Your task to perform on an android device: open app "eBay: The shopping marketplace" (install if not already installed) and go to login screen Image 0: 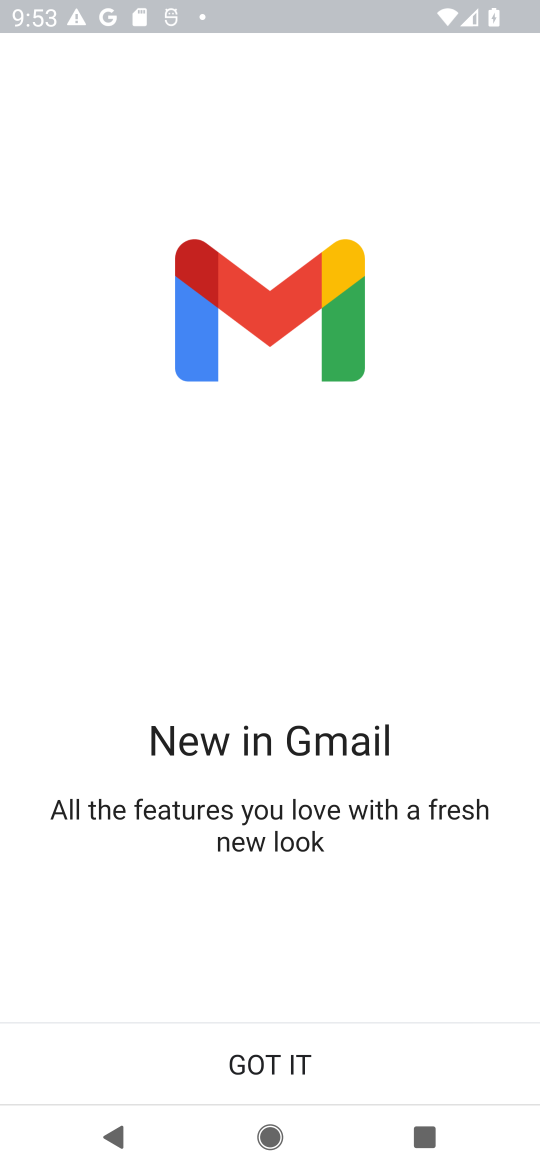
Step 0: press home button
Your task to perform on an android device: open app "eBay: The shopping marketplace" (install if not already installed) and go to login screen Image 1: 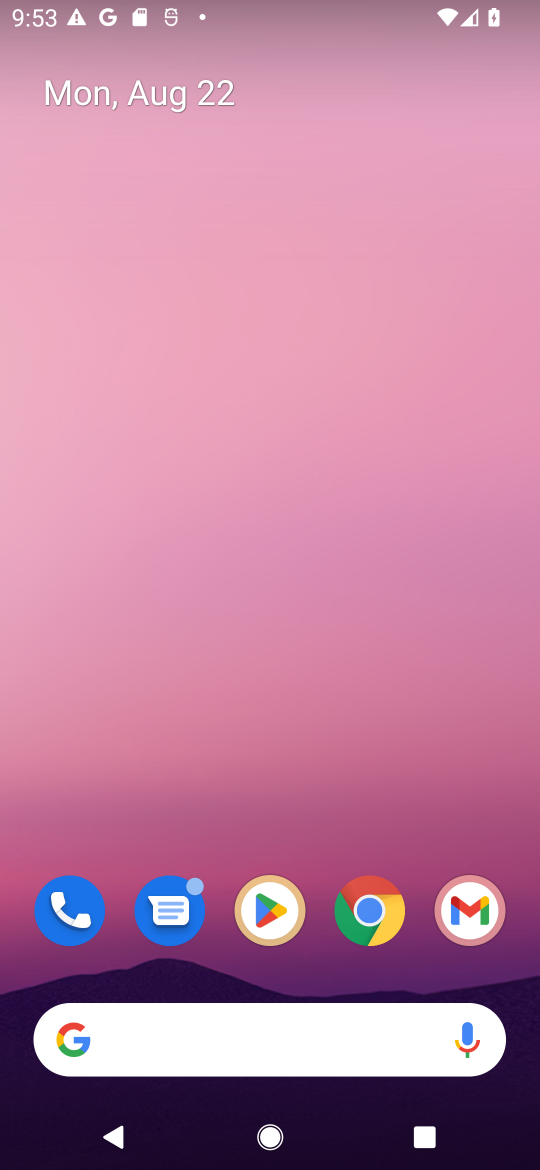
Step 1: click (278, 910)
Your task to perform on an android device: open app "eBay: The shopping marketplace" (install if not already installed) and go to login screen Image 2: 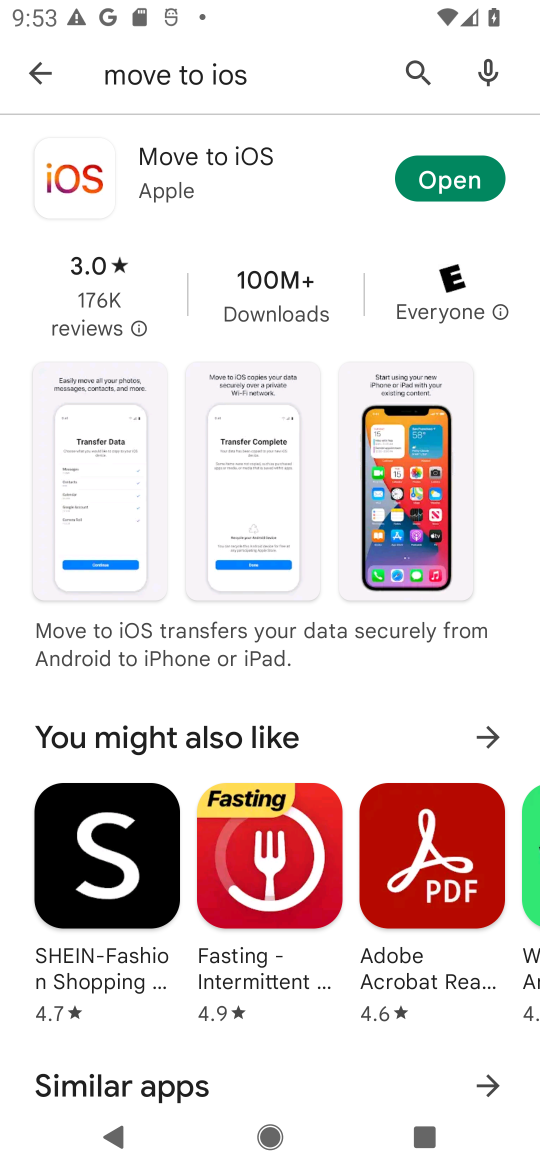
Step 2: click (424, 69)
Your task to perform on an android device: open app "eBay: The shopping marketplace" (install if not already installed) and go to login screen Image 3: 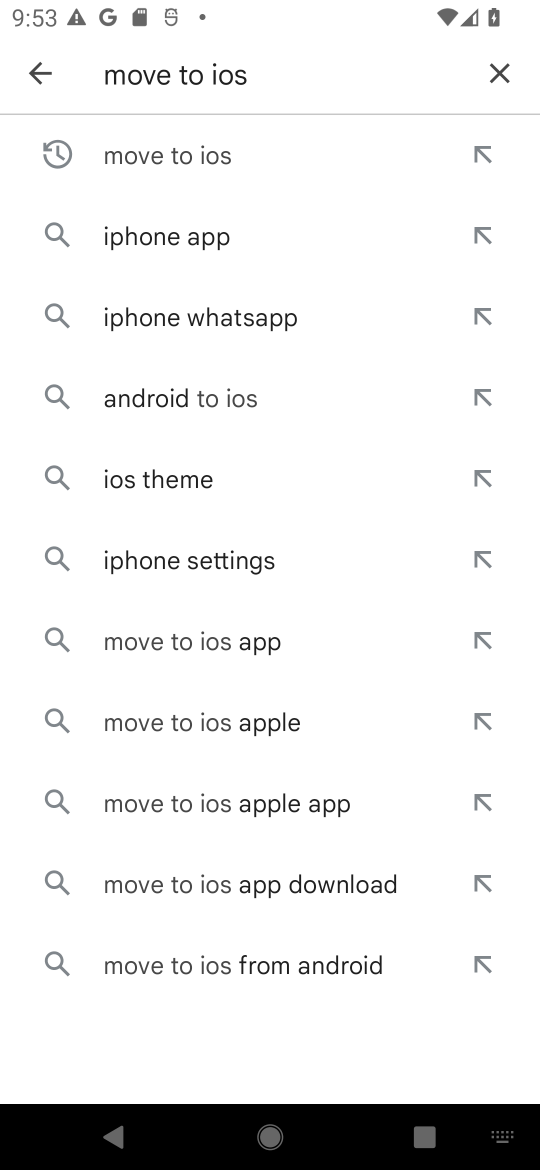
Step 3: click (505, 71)
Your task to perform on an android device: open app "eBay: The shopping marketplace" (install if not already installed) and go to login screen Image 4: 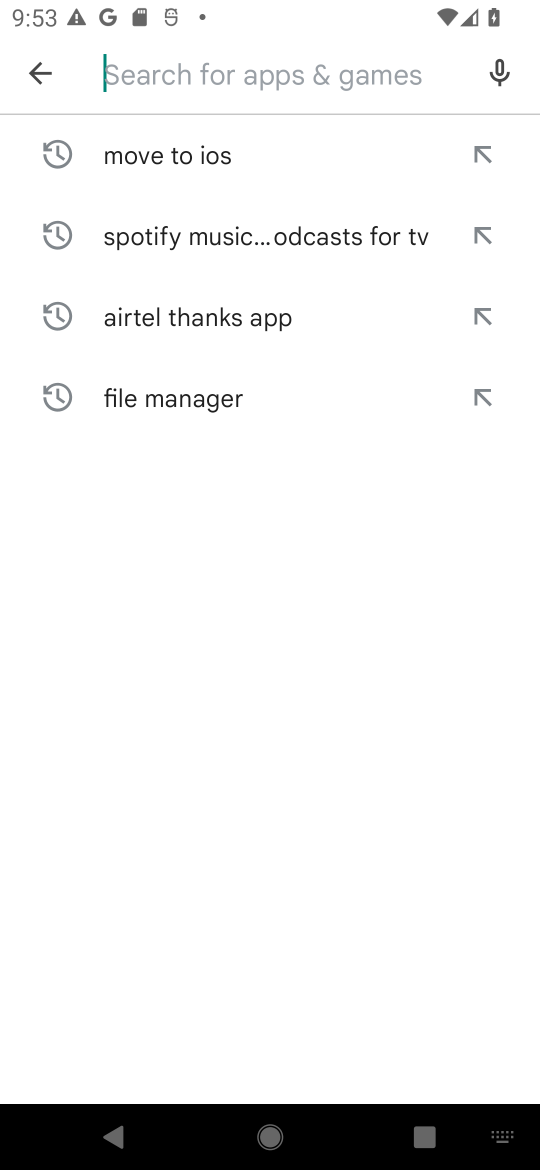
Step 4: type "eBay: The shopping marketplace"
Your task to perform on an android device: open app "eBay: The shopping marketplace" (install if not already installed) and go to login screen Image 5: 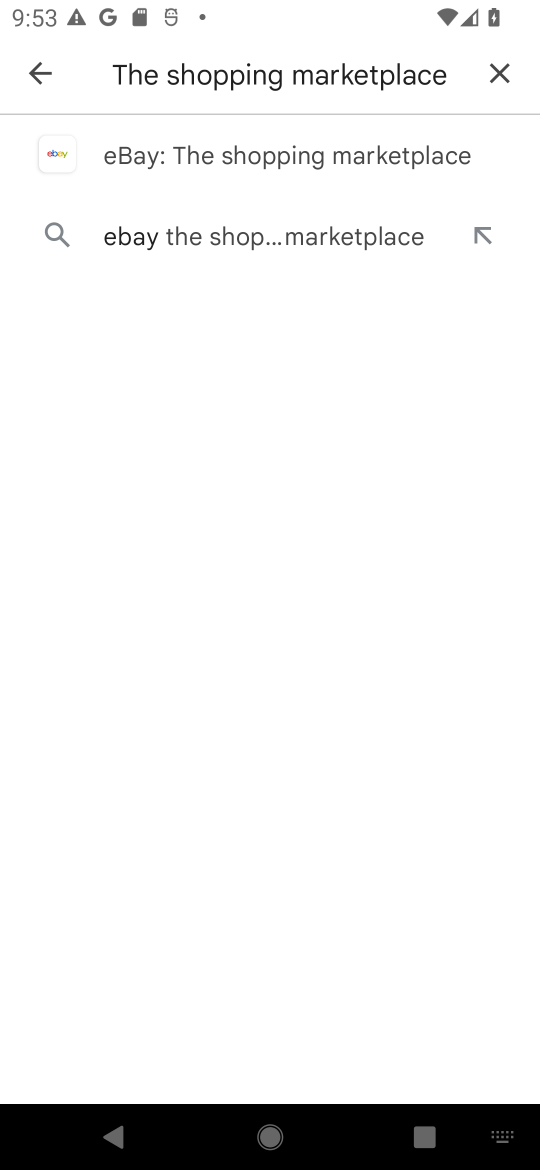
Step 5: click (290, 170)
Your task to perform on an android device: open app "eBay: The shopping marketplace" (install if not already installed) and go to login screen Image 6: 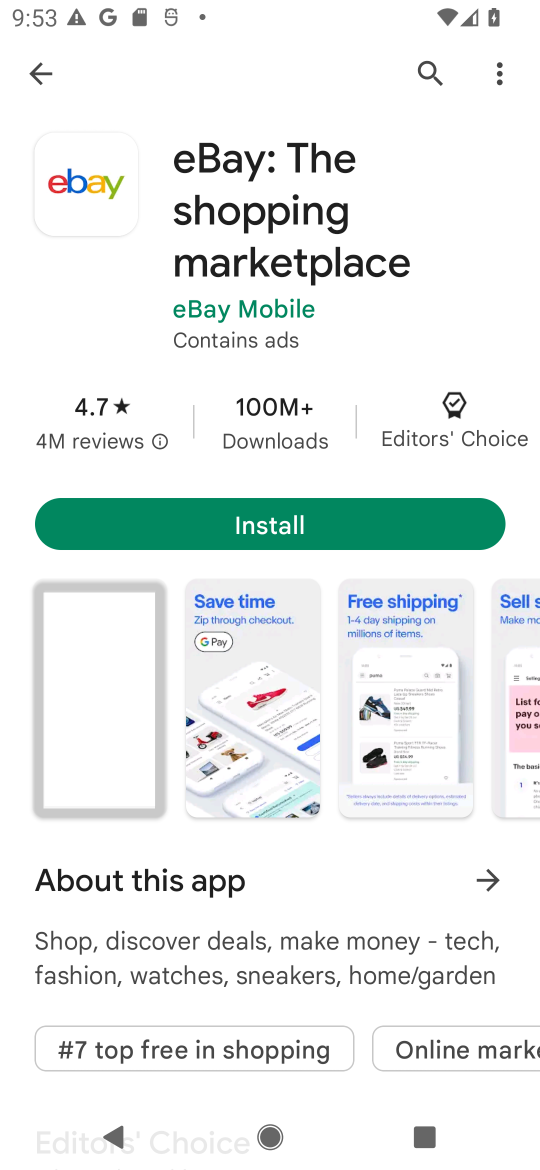
Step 6: click (275, 521)
Your task to perform on an android device: open app "eBay: The shopping marketplace" (install if not already installed) and go to login screen Image 7: 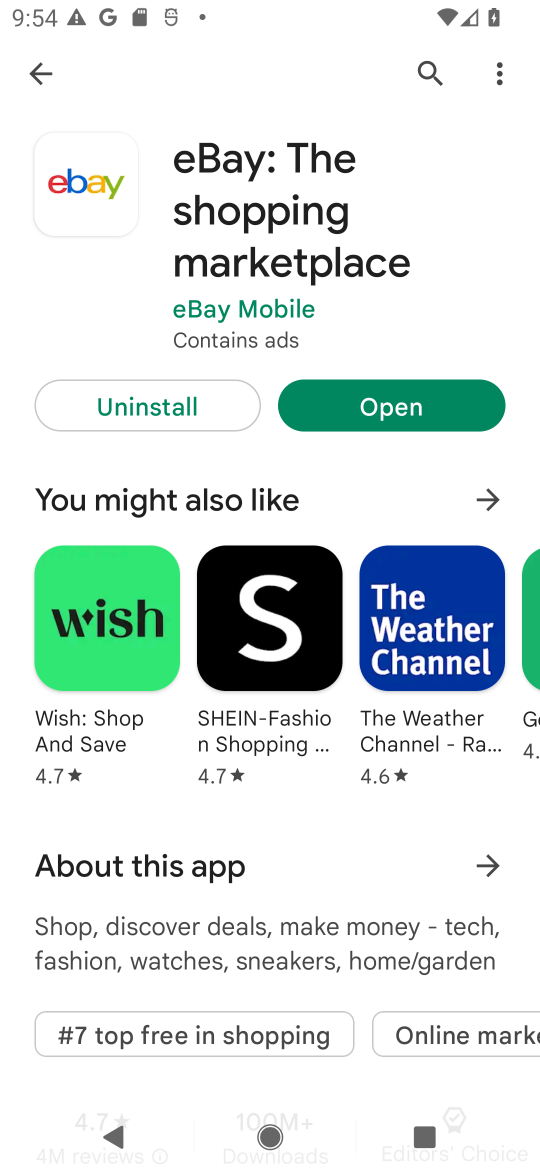
Step 7: click (367, 385)
Your task to perform on an android device: open app "eBay: The shopping marketplace" (install if not already installed) and go to login screen Image 8: 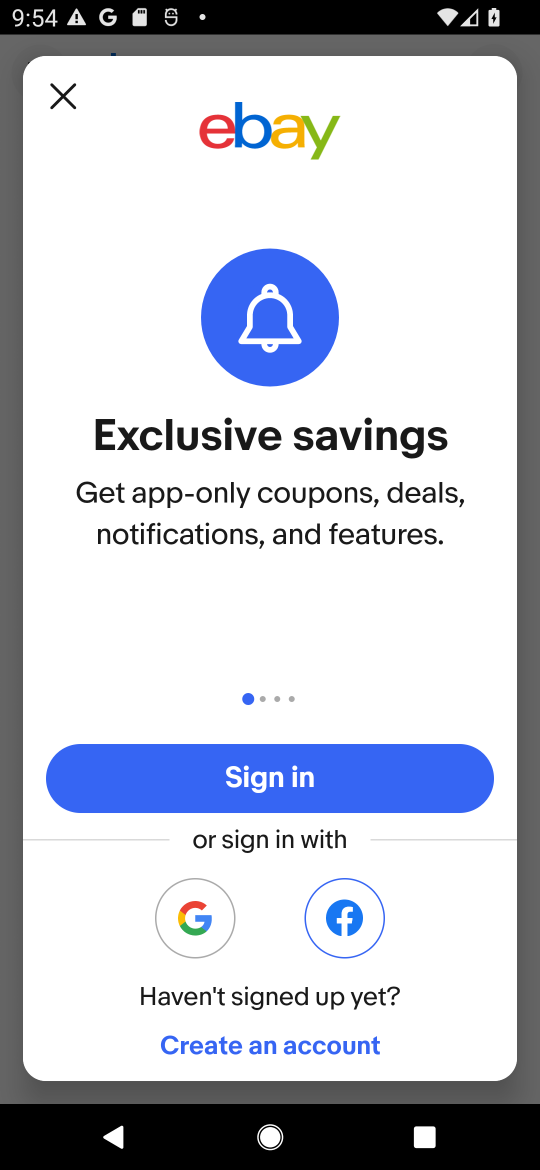
Step 8: task complete